Your task to perform on an android device: set default search engine in the chrome app Image 0: 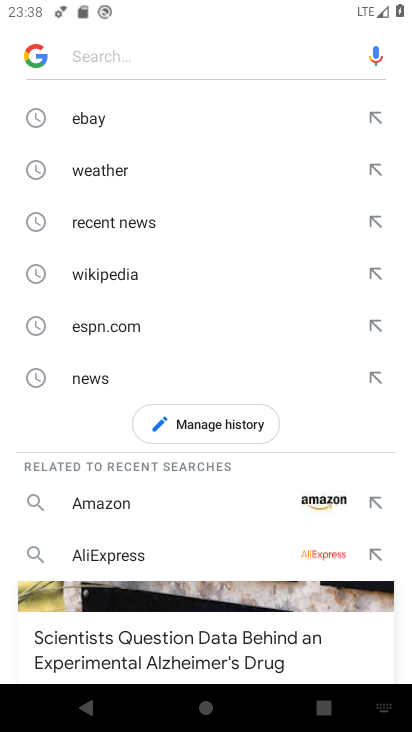
Step 0: drag from (218, 340) to (265, 63)
Your task to perform on an android device: set default search engine in the chrome app Image 1: 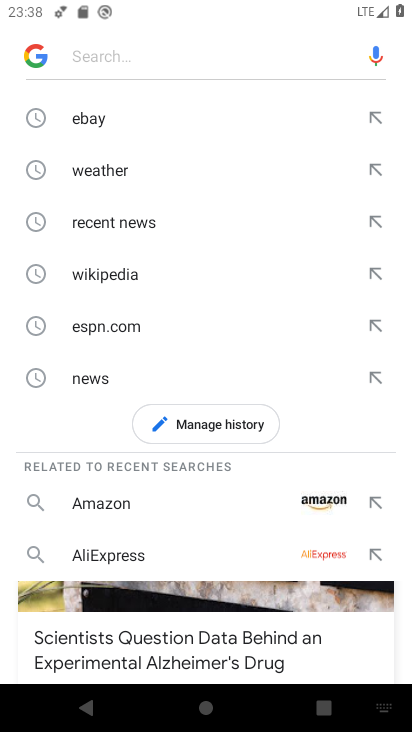
Step 1: click (124, 57)
Your task to perform on an android device: set default search engine in the chrome app Image 2: 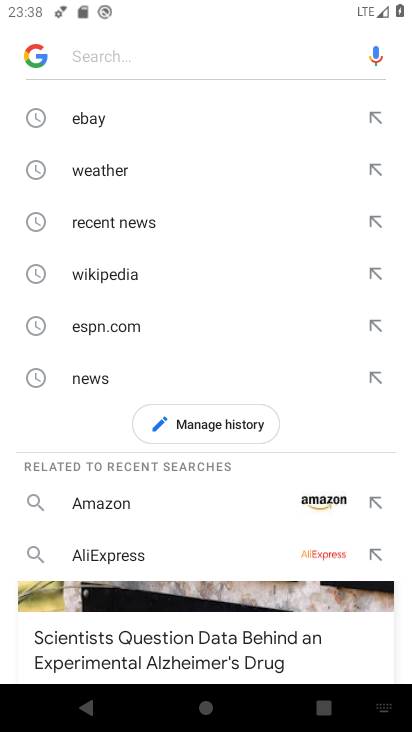
Step 2: press back button
Your task to perform on an android device: set default search engine in the chrome app Image 3: 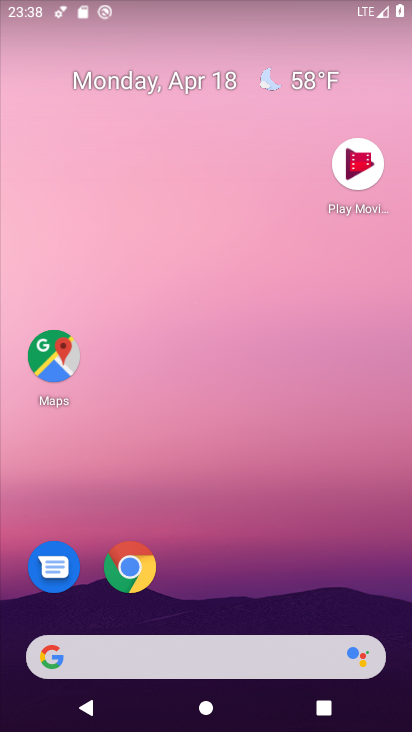
Step 3: click (118, 568)
Your task to perform on an android device: set default search engine in the chrome app Image 4: 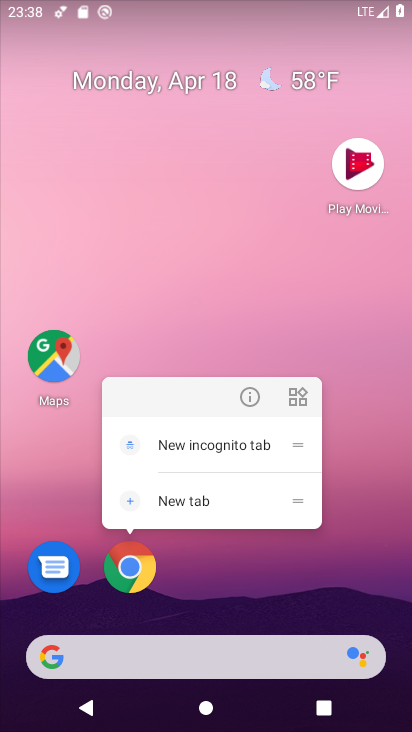
Step 4: click (250, 394)
Your task to perform on an android device: set default search engine in the chrome app Image 5: 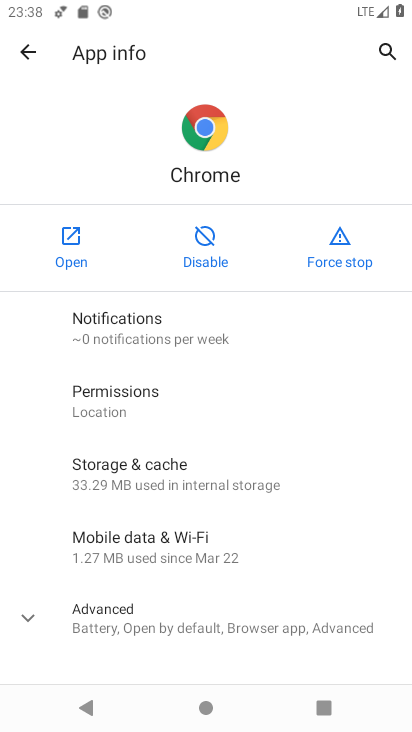
Step 5: click (74, 246)
Your task to perform on an android device: set default search engine in the chrome app Image 6: 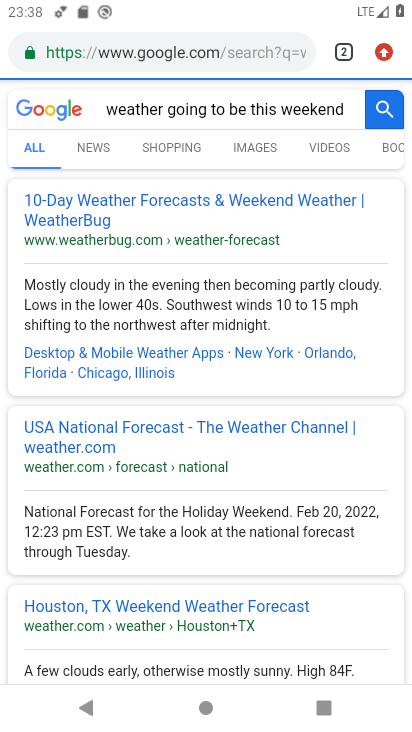
Step 6: click (389, 47)
Your task to perform on an android device: set default search engine in the chrome app Image 7: 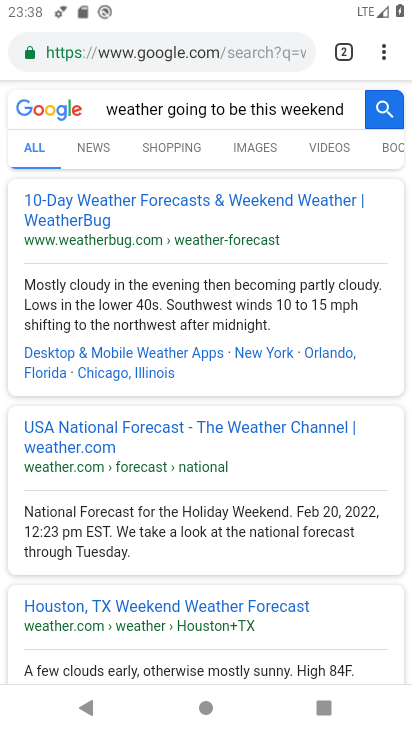
Step 7: click (391, 48)
Your task to perform on an android device: set default search engine in the chrome app Image 8: 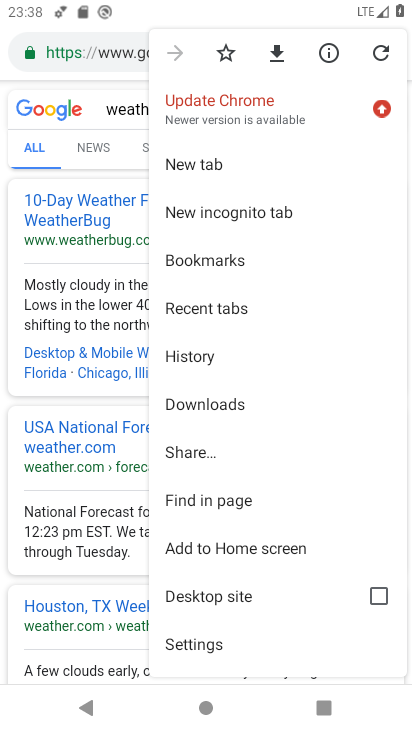
Step 8: drag from (254, 535) to (259, 226)
Your task to perform on an android device: set default search engine in the chrome app Image 9: 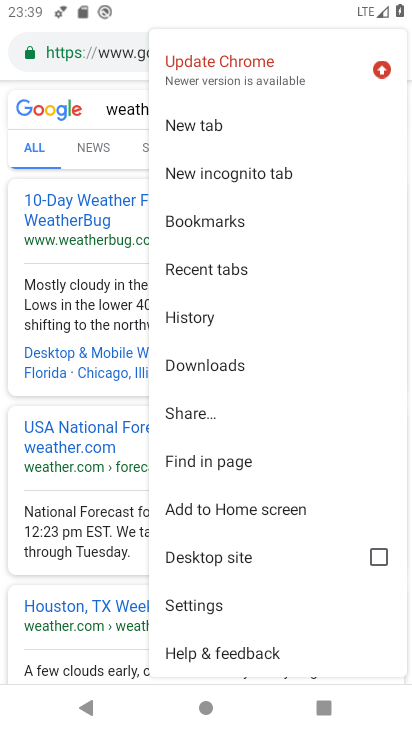
Step 9: drag from (300, 392) to (325, 143)
Your task to perform on an android device: set default search engine in the chrome app Image 10: 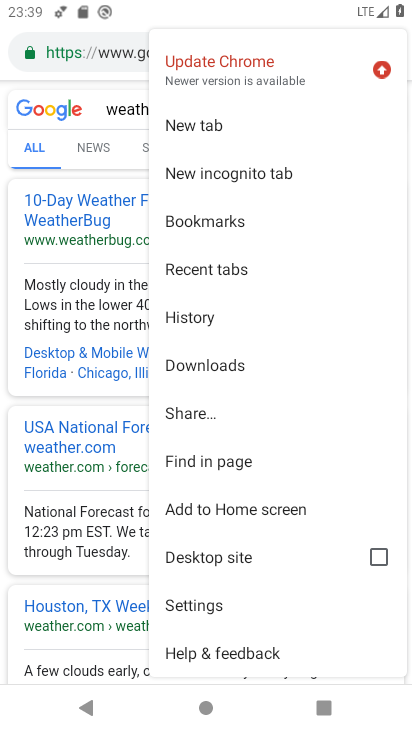
Step 10: click (222, 601)
Your task to perform on an android device: set default search engine in the chrome app Image 11: 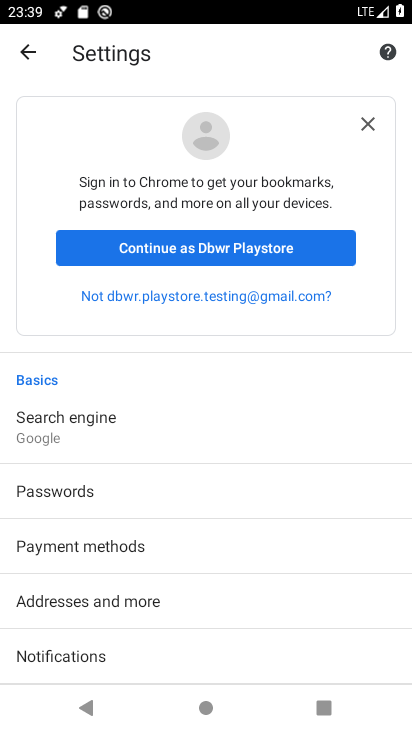
Step 11: drag from (214, 577) to (254, 163)
Your task to perform on an android device: set default search engine in the chrome app Image 12: 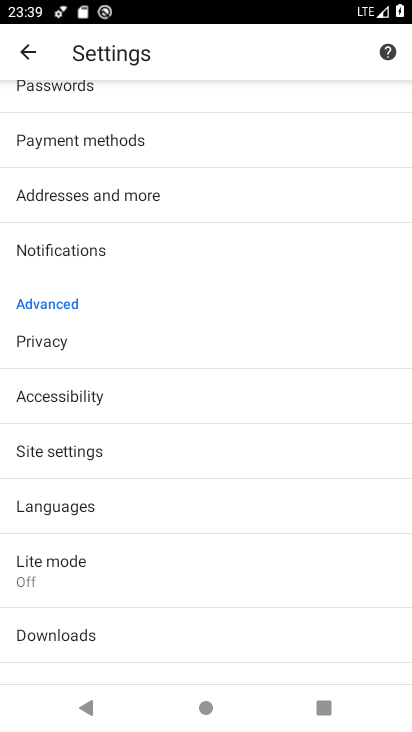
Step 12: drag from (205, 541) to (285, 218)
Your task to perform on an android device: set default search engine in the chrome app Image 13: 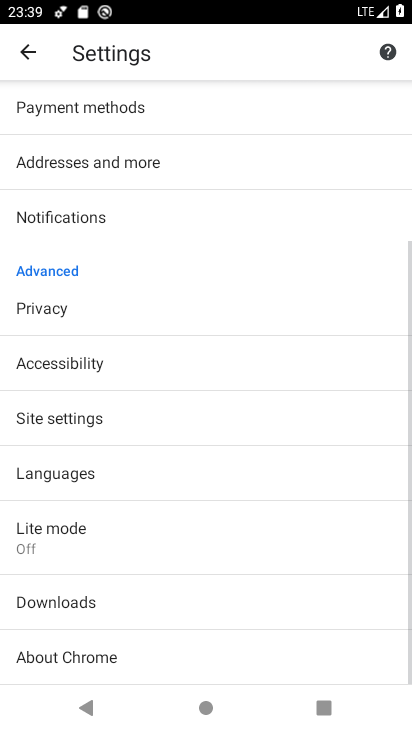
Step 13: drag from (176, 493) to (261, 153)
Your task to perform on an android device: set default search engine in the chrome app Image 14: 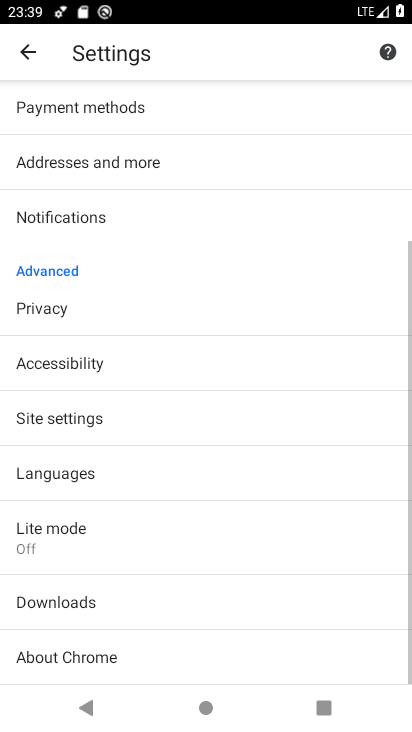
Step 14: drag from (193, 566) to (241, 232)
Your task to perform on an android device: set default search engine in the chrome app Image 15: 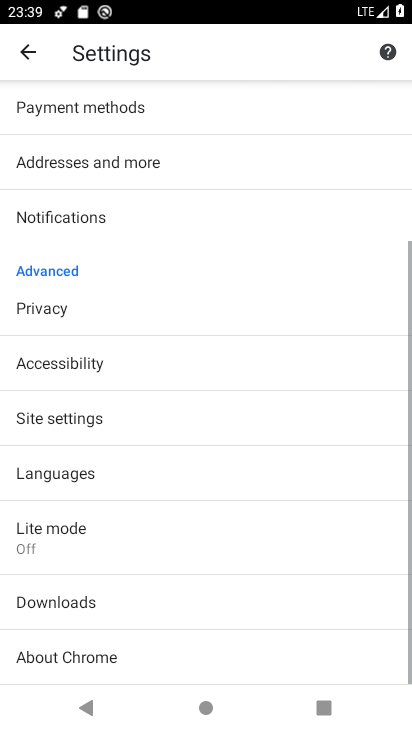
Step 15: click (259, 230)
Your task to perform on an android device: set default search engine in the chrome app Image 16: 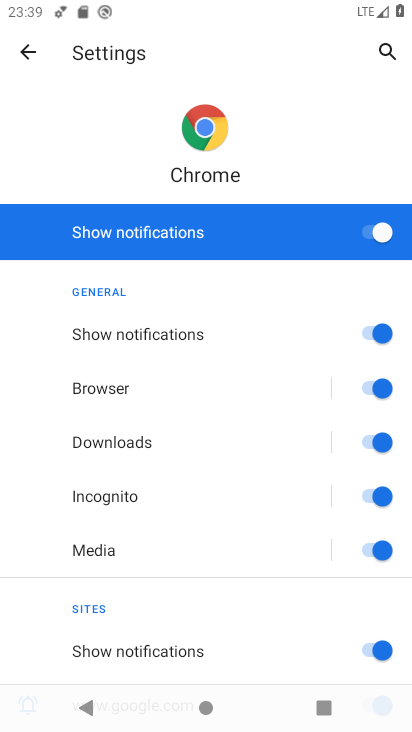
Step 16: drag from (216, 596) to (302, 161)
Your task to perform on an android device: set default search engine in the chrome app Image 17: 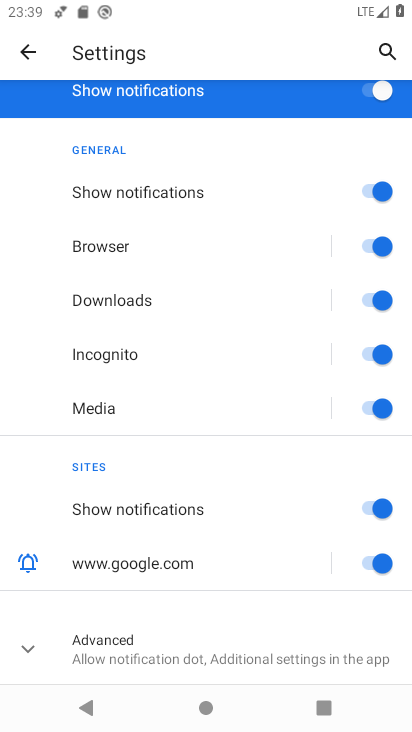
Step 17: drag from (220, 497) to (229, 178)
Your task to perform on an android device: set default search engine in the chrome app Image 18: 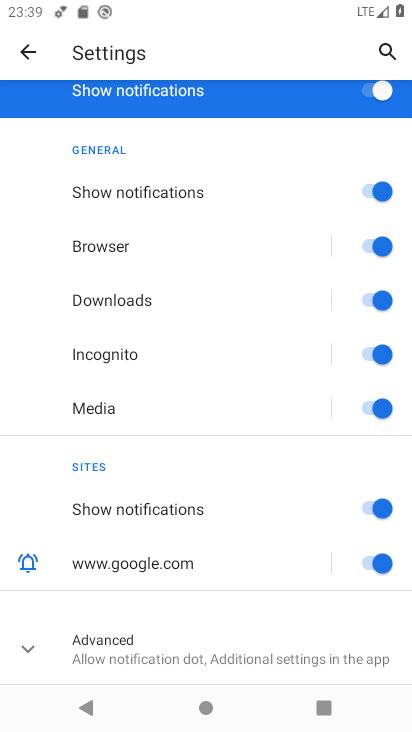
Step 18: click (25, 45)
Your task to perform on an android device: set default search engine in the chrome app Image 19: 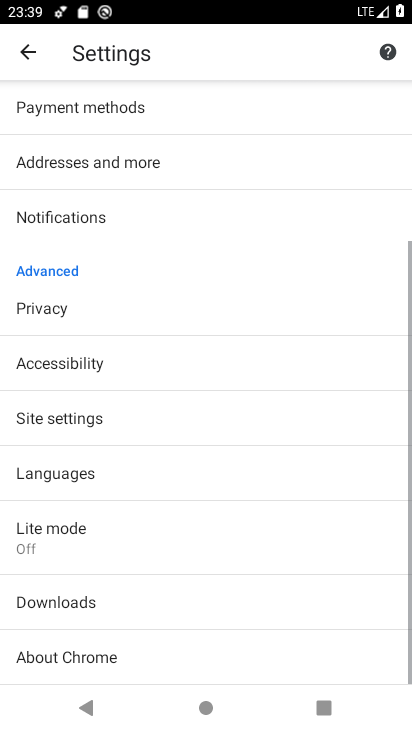
Step 19: drag from (227, 201) to (286, 711)
Your task to perform on an android device: set default search engine in the chrome app Image 20: 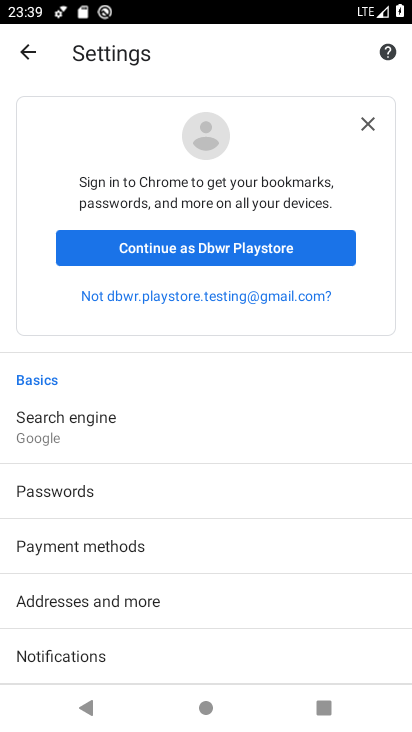
Step 20: click (124, 426)
Your task to perform on an android device: set default search engine in the chrome app Image 21: 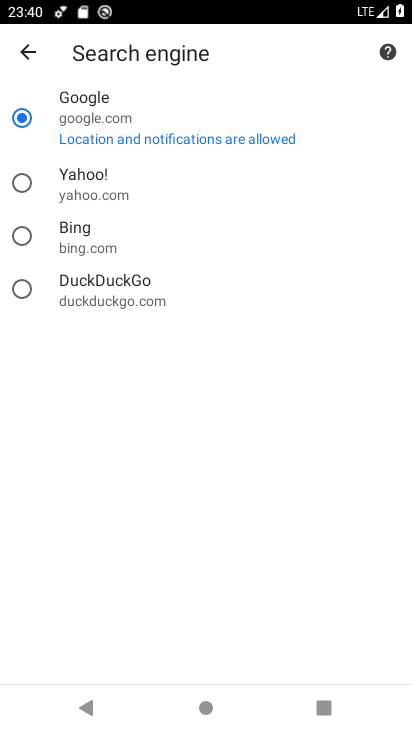
Step 21: click (115, 114)
Your task to perform on an android device: set default search engine in the chrome app Image 22: 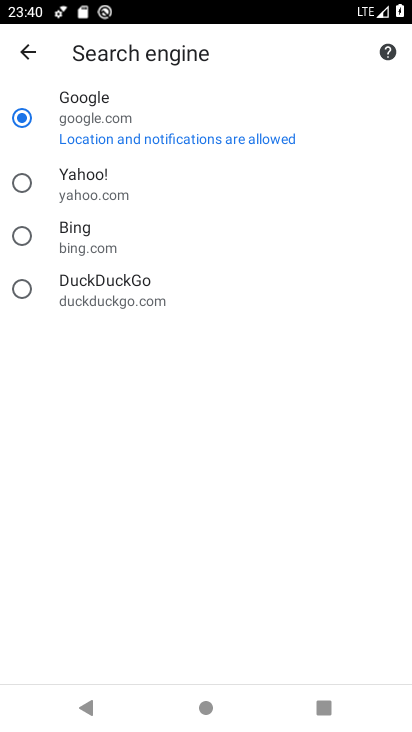
Step 22: task complete